Your task to perform on an android device: What's the news in Puerto Rico? Image 0: 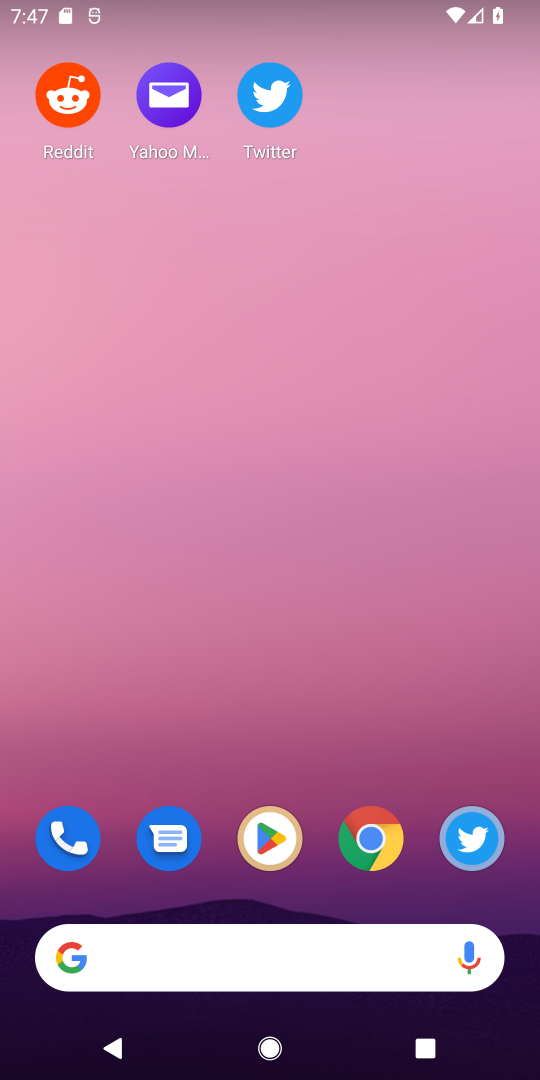
Step 0: click (370, 836)
Your task to perform on an android device: What's the news in Puerto Rico? Image 1: 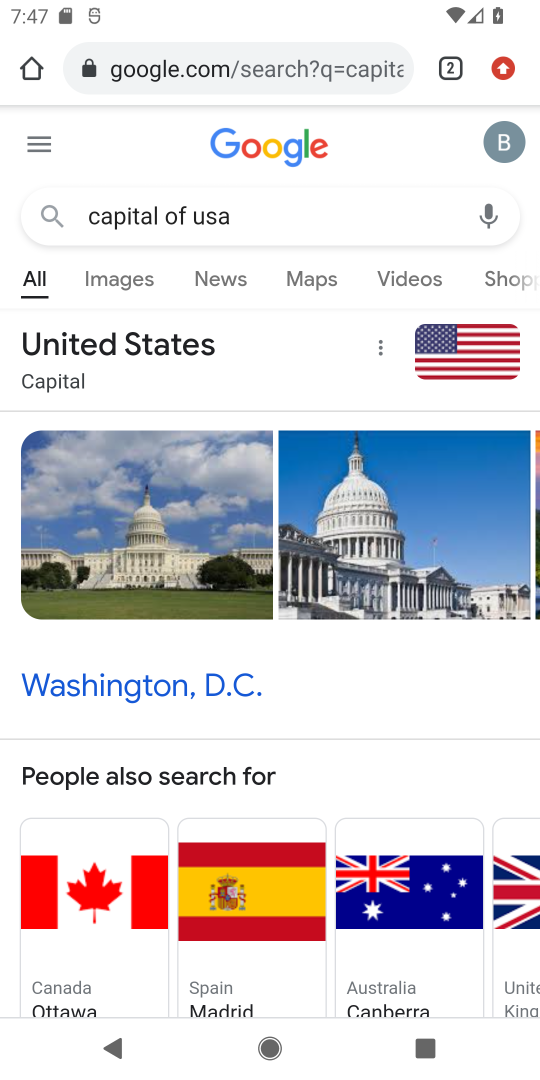
Step 1: click (237, 54)
Your task to perform on an android device: What's the news in Puerto Rico? Image 2: 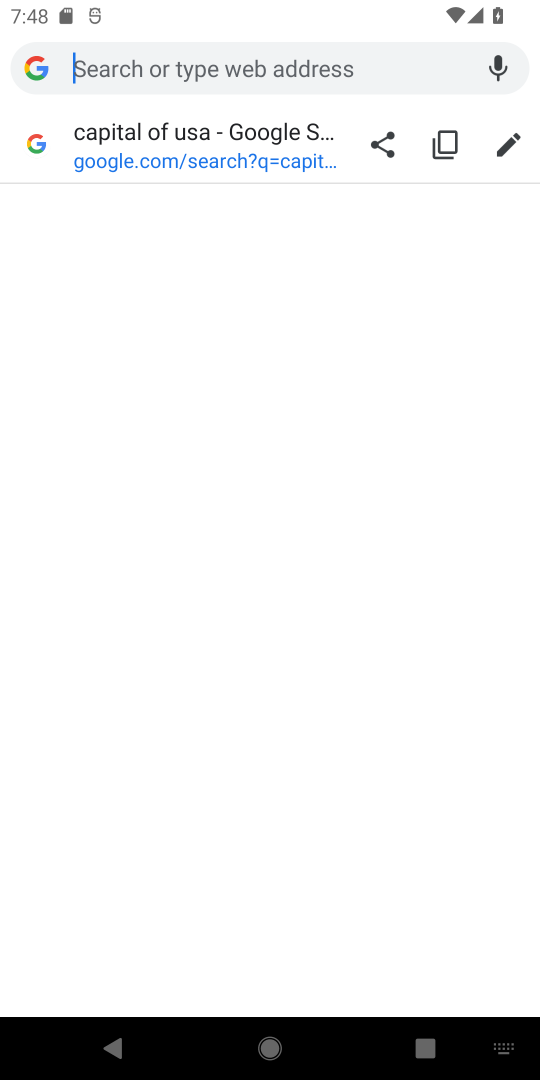
Step 2: type "news in puerto rico?"
Your task to perform on an android device: What's the news in Puerto Rico? Image 3: 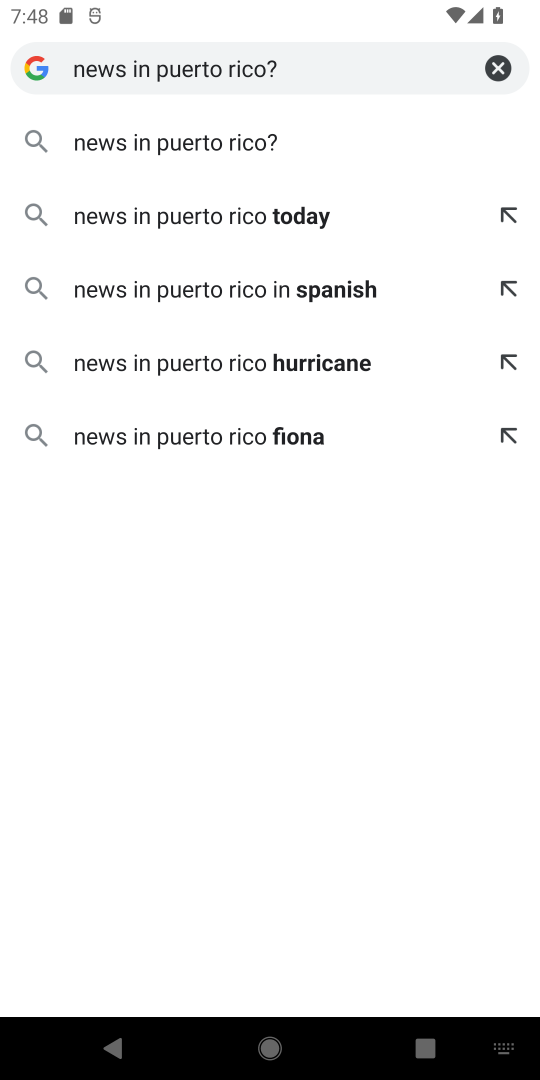
Step 3: click (165, 140)
Your task to perform on an android device: What's the news in Puerto Rico? Image 4: 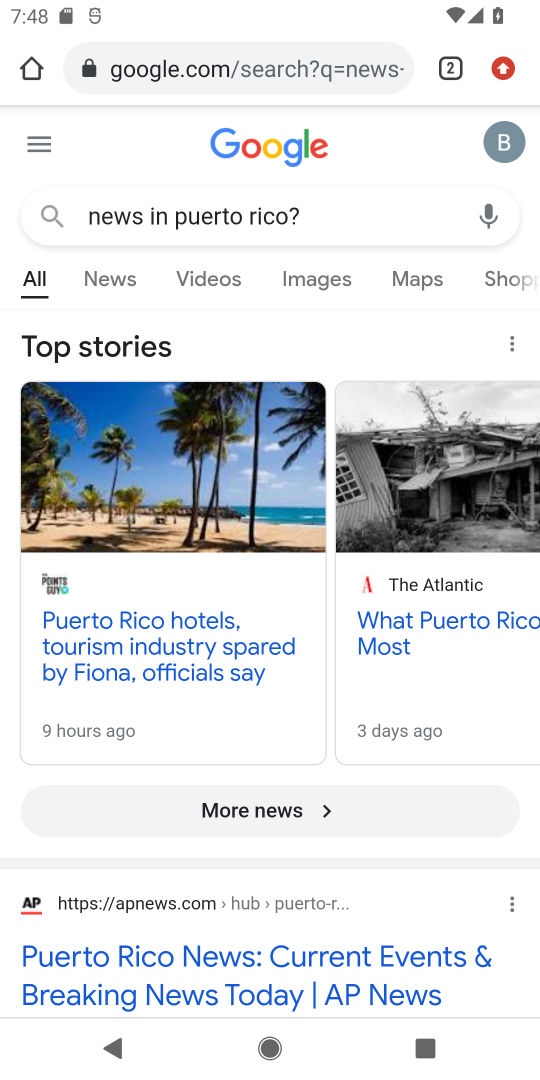
Step 4: click (192, 944)
Your task to perform on an android device: What's the news in Puerto Rico? Image 5: 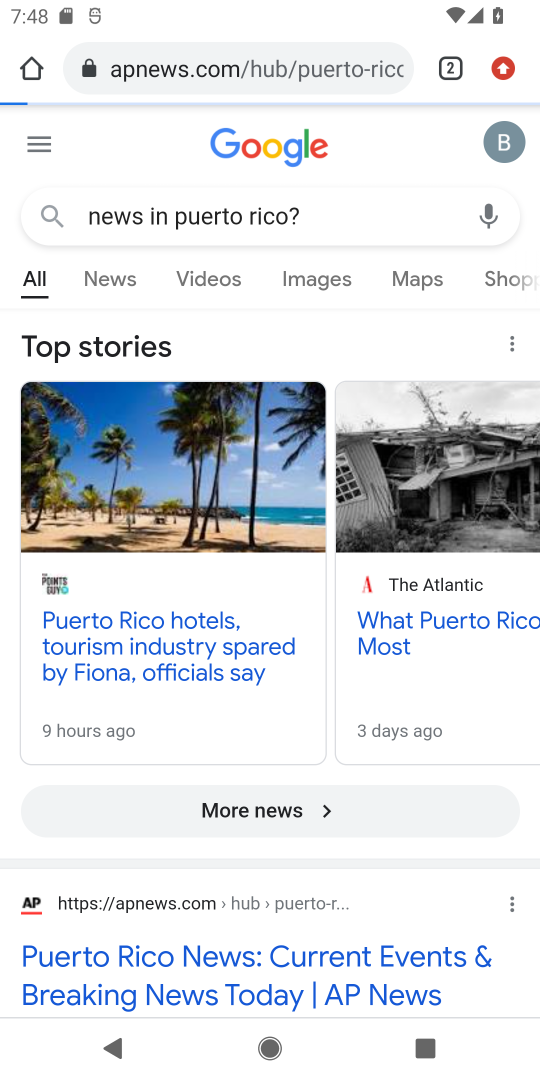
Step 5: click (108, 953)
Your task to perform on an android device: What's the news in Puerto Rico? Image 6: 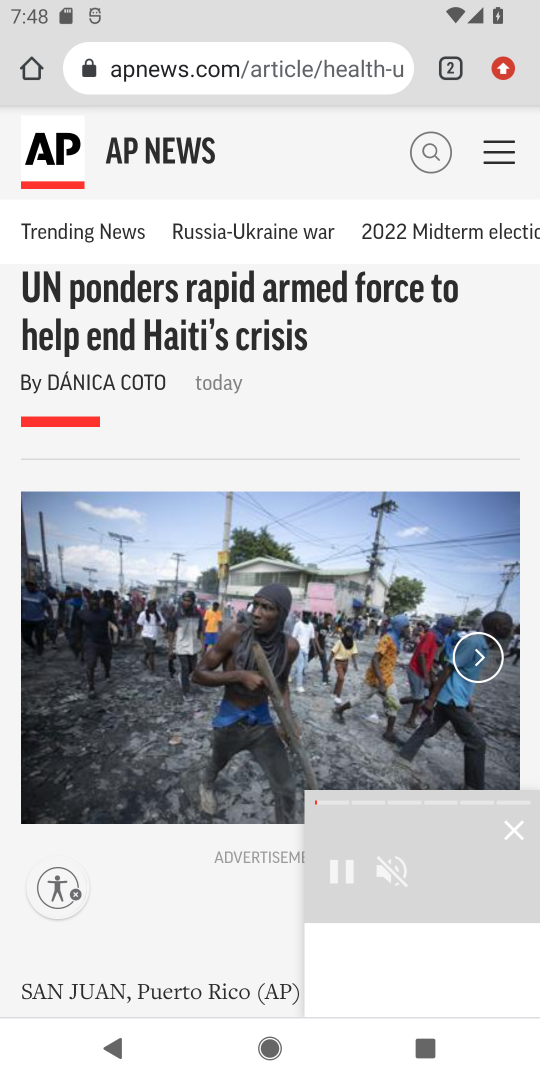
Step 6: drag from (336, 900) to (344, 384)
Your task to perform on an android device: What's the news in Puerto Rico? Image 7: 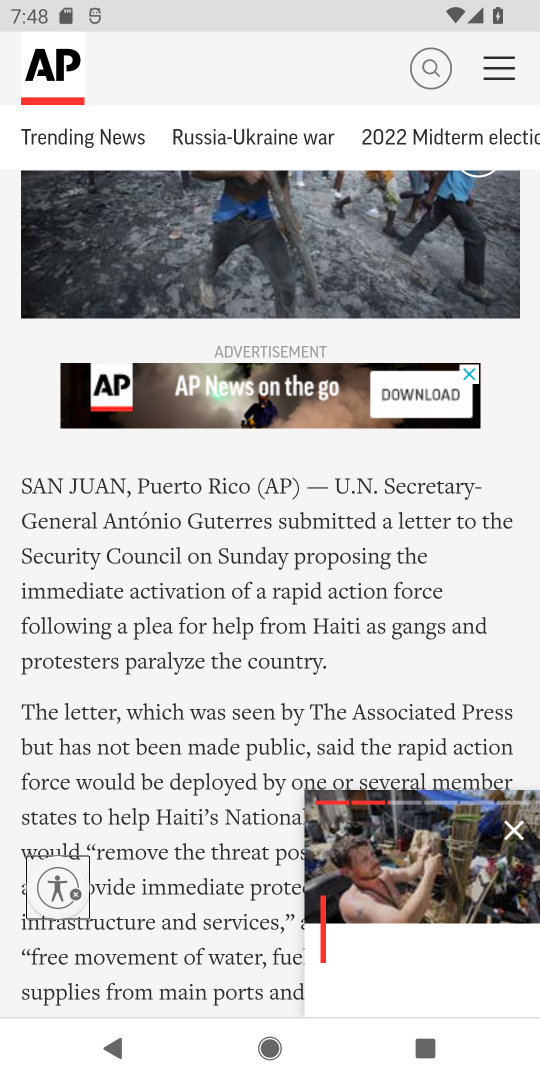
Step 7: click (514, 830)
Your task to perform on an android device: What's the news in Puerto Rico? Image 8: 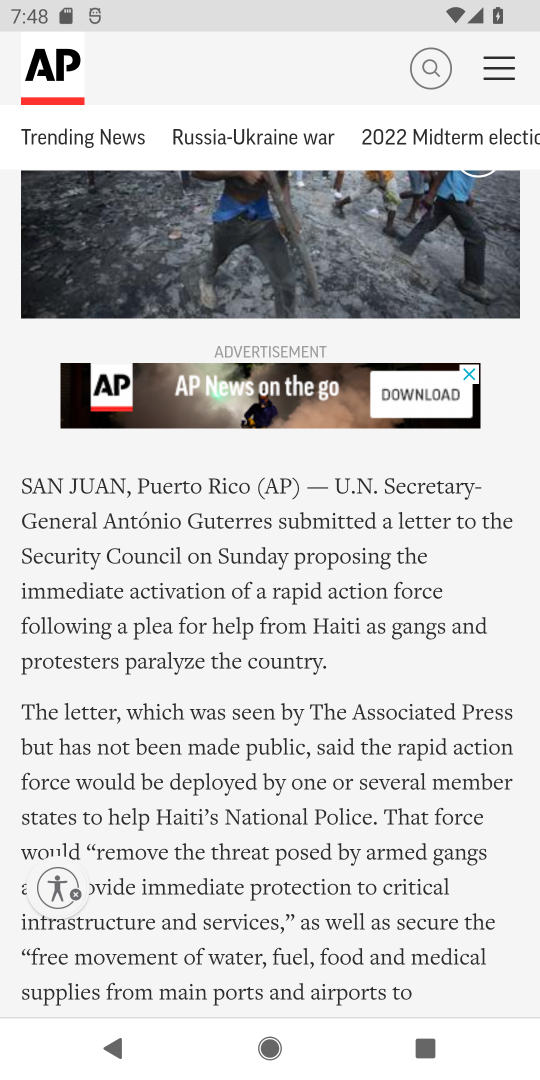
Step 8: task complete